Your task to perform on an android device: Show me popular games on the Play Store Image 0: 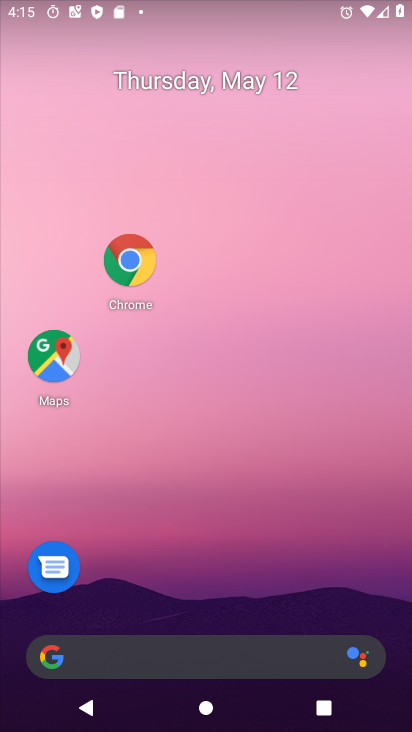
Step 0: drag from (200, 639) to (254, 135)
Your task to perform on an android device: Show me popular games on the Play Store Image 1: 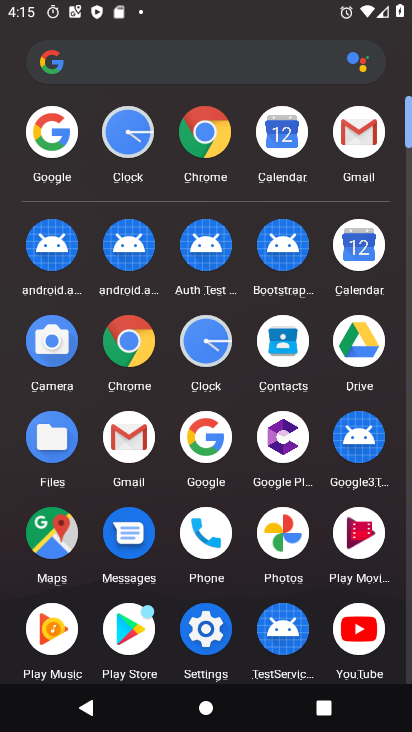
Step 1: click (120, 628)
Your task to perform on an android device: Show me popular games on the Play Store Image 2: 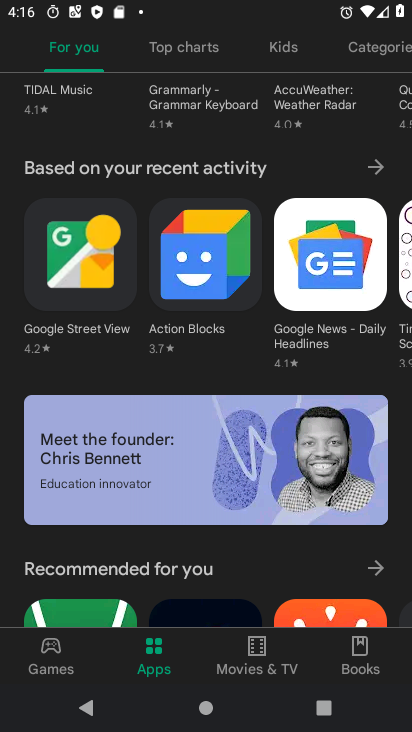
Step 2: drag from (231, 126) to (257, 536)
Your task to perform on an android device: Show me popular games on the Play Store Image 3: 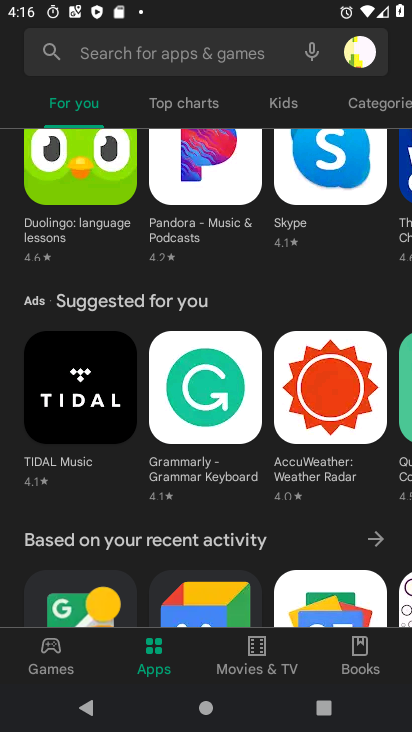
Step 3: click (128, 45)
Your task to perform on an android device: Show me popular games on the Play Store Image 4: 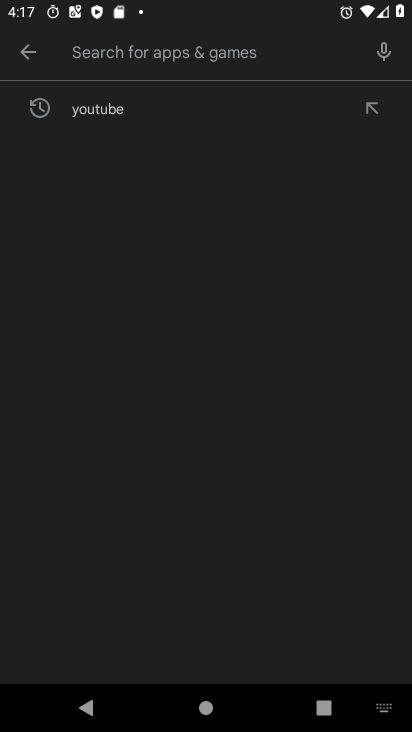
Step 4: type "popular games"
Your task to perform on an android device: Show me popular games on the Play Store Image 5: 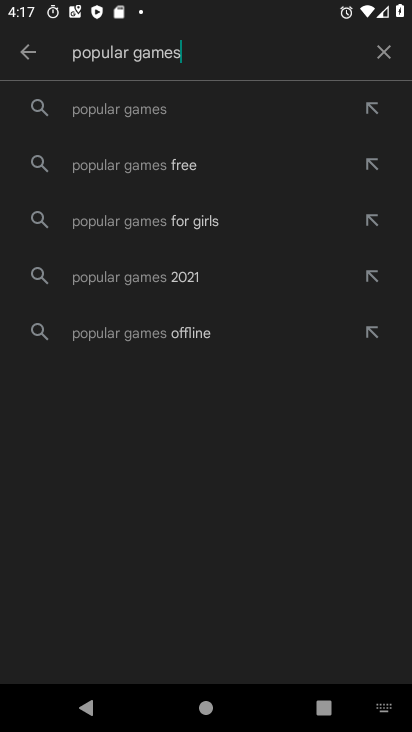
Step 5: click (165, 117)
Your task to perform on an android device: Show me popular games on the Play Store Image 6: 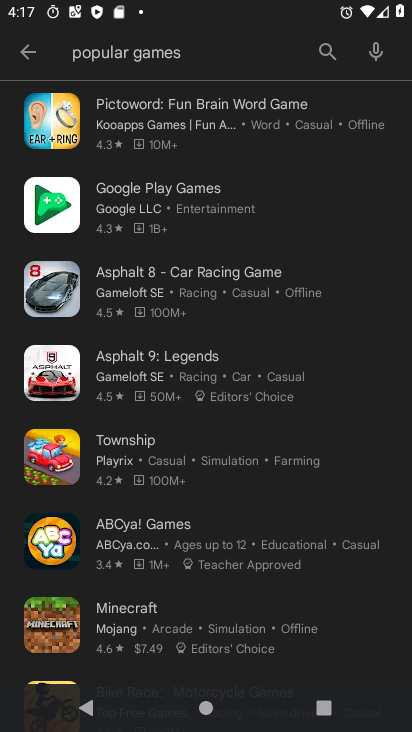
Step 6: task complete